Your task to perform on an android device: Turn on the flashlight Image 0: 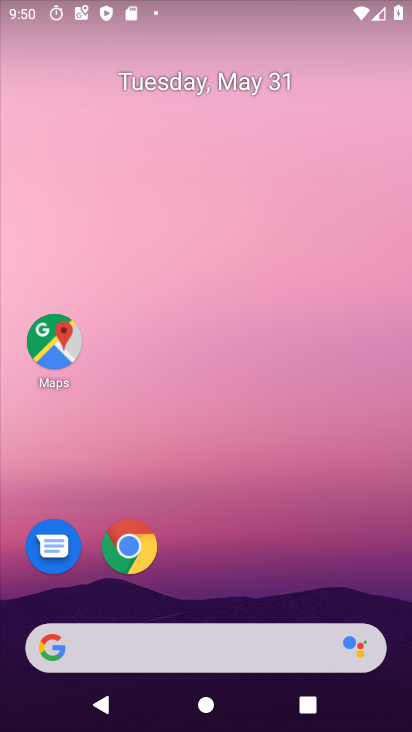
Step 0: click (252, 576)
Your task to perform on an android device: Turn on the flashlight Image 1: 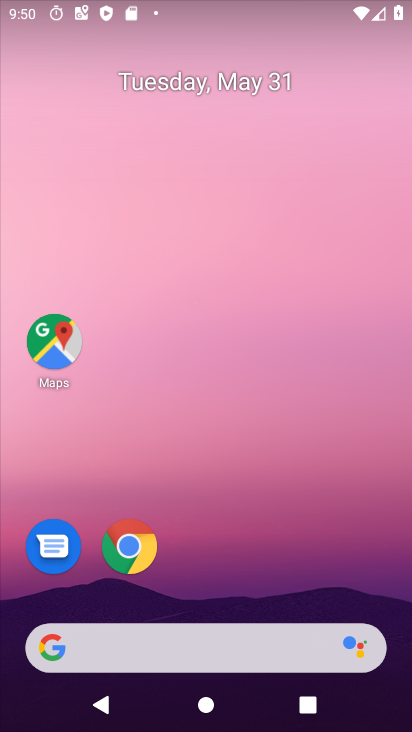
Step 1: drag from (252, 576) to (210, 186)
Your task to perform on an android device: Turn on the flashlight Image 2: 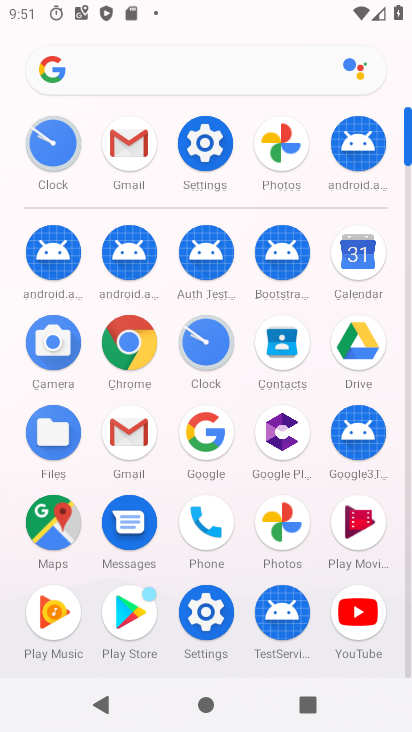
Step 2: click (190, 127)
Your task to perform on an android device: Turn on the flashlight Image 3: 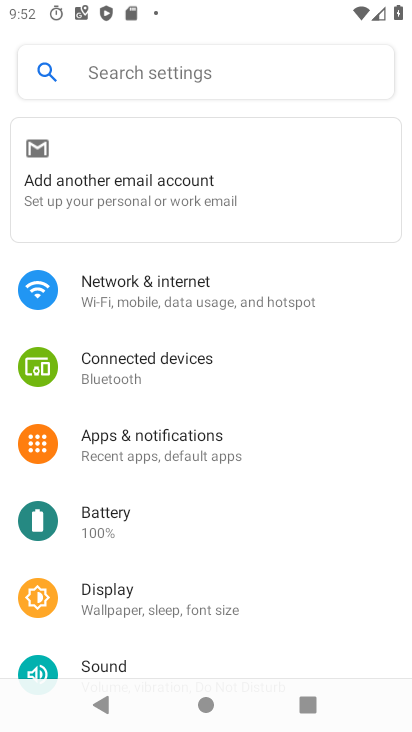
Step 3: click (319, 359)
Your task to perform on an android device: Turn on the flashlight Image 4: 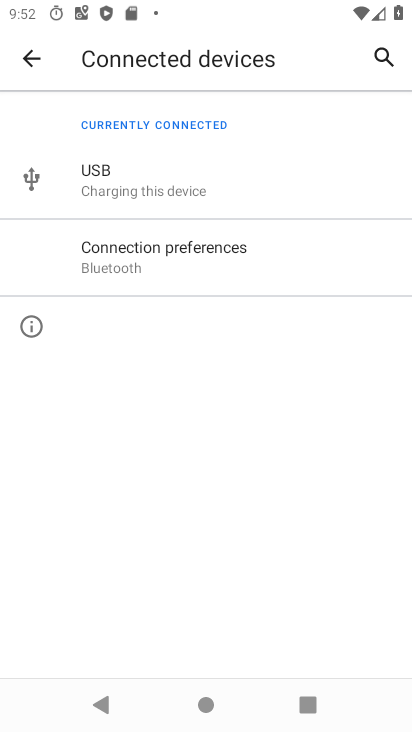
Step 4: click (38, 51)
Your task to perform on an android device: Turn on the flashlight Image 5: 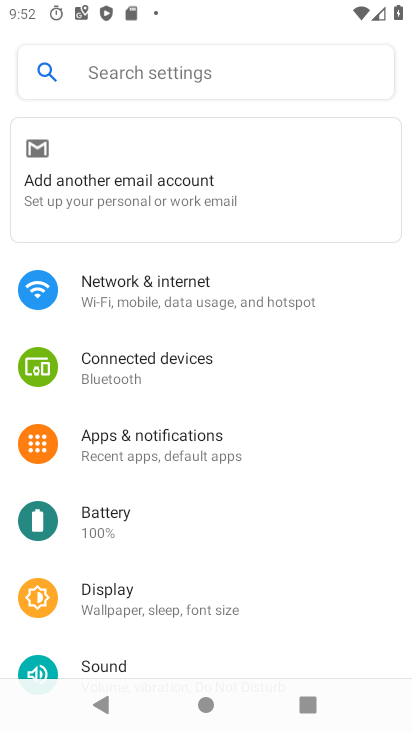
Step 5: task complete